Your task to perform on an android device: Go to calendar. Show me events next week Image 0: 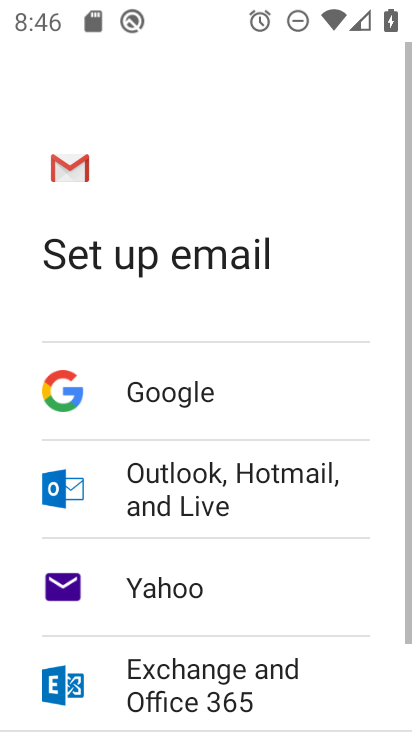
Step 0: press home button
Your task to perform on an android device: Go to calendar. Show me events next week Image 1: 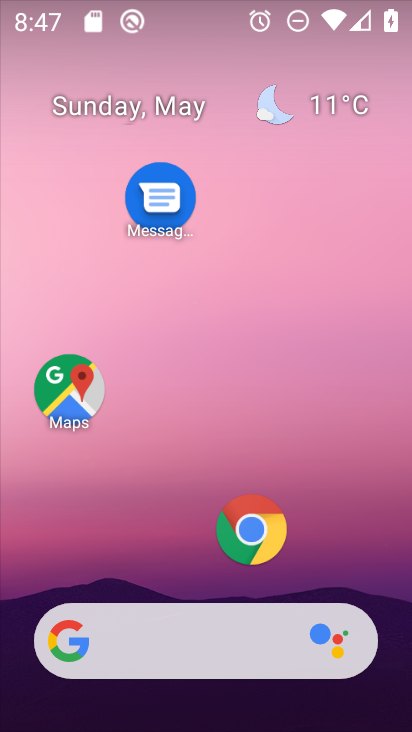
Step 1: drag from (190, 571) to (229, 6)
Your task to perform on an android device: Go to calendar. Show me events next week Image 2: 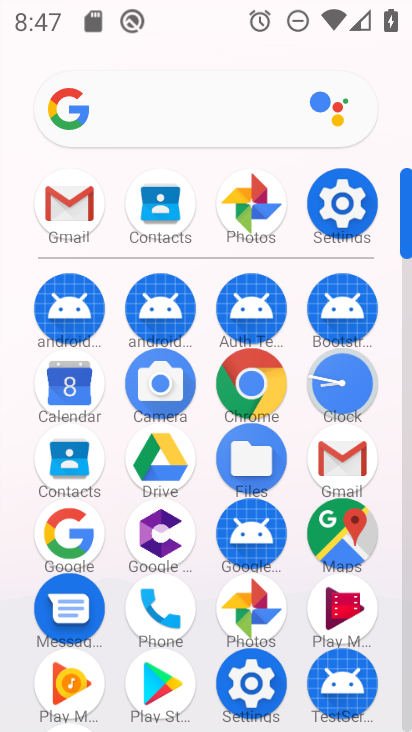
Step 2: click (69, 378)
Your task to perform on an android device: Go to calendar. Show me events next week Image 3: 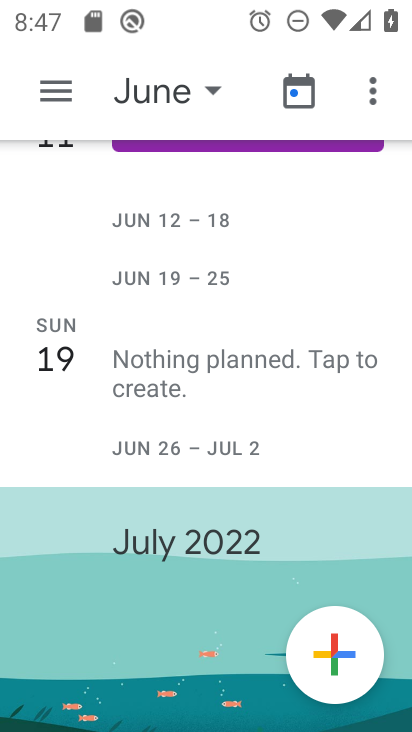
Step 3: click (55, 87)
Your task to perform on an android device: Go to calendar. Show me events next week Image 4: 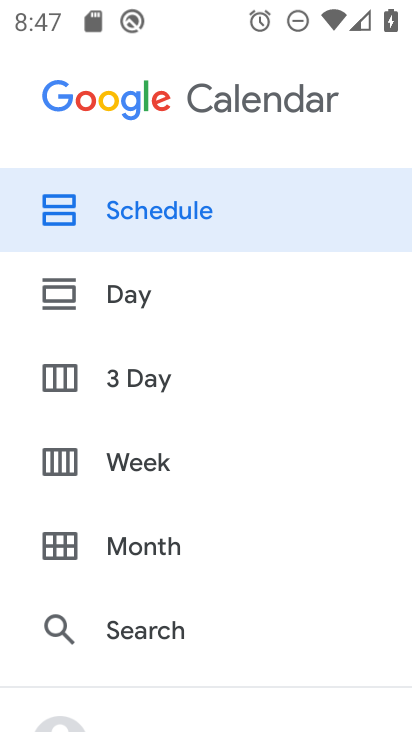
Step 4: click (116, 462)
Your task to perform on an android device: Go to calendar. Show me events next week Image 5: 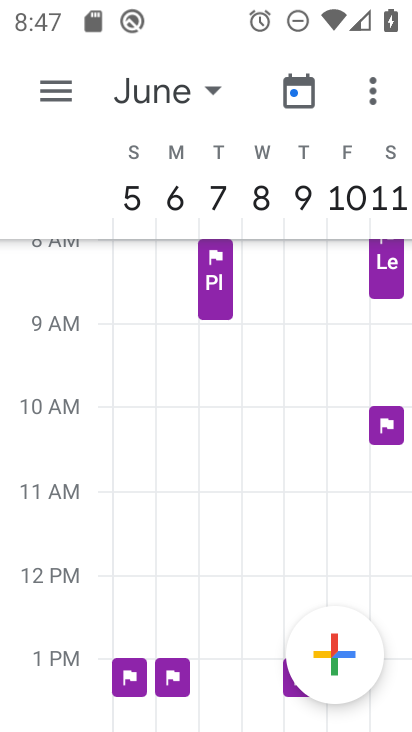
Step 5: drag from (139, 196) to (410, 219)
Your task to perform on an android device: Go to calendar. Show me events next week Image 6: 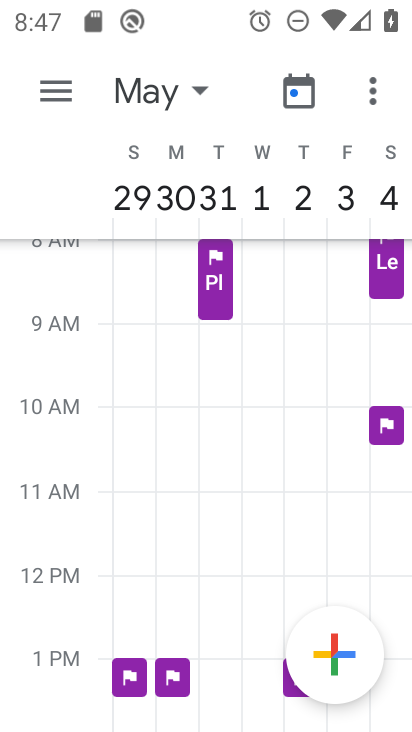
Step 6: drag from (126, 197) to (407, 197)
Your task to perform on an android device: Go to calendar. Show me events next week Image 7: 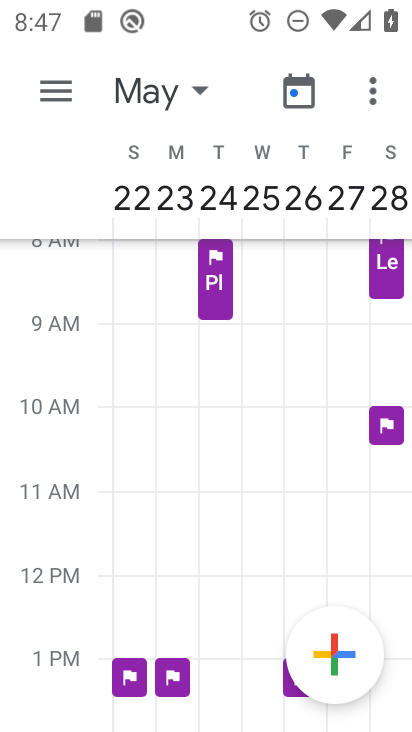
Step 7: drag from (112, 203) to (409, 207)
Your task to perform on an android device: Go to calendar. Show me events next week Image 8: 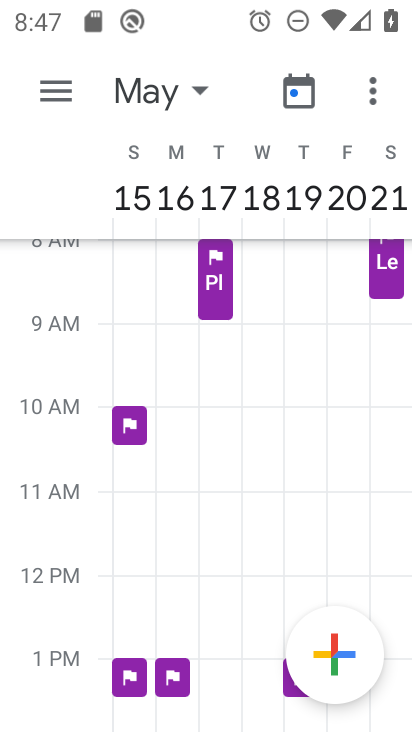
Step 8: drag from (127, 202) to (409, 211)
Your task to perform on an android device: Go to calendar. Show me events next week Image 9: 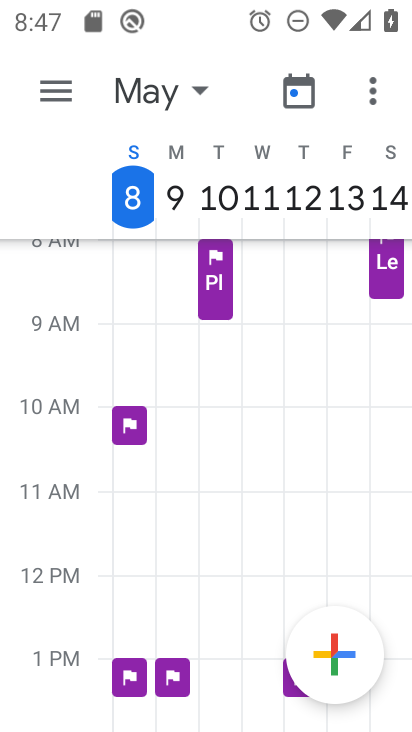
Step 9: drag from (385, 188) to (76, 181)
Your task to perform on an android device: Go to calendar. Show me events next week Image 10: 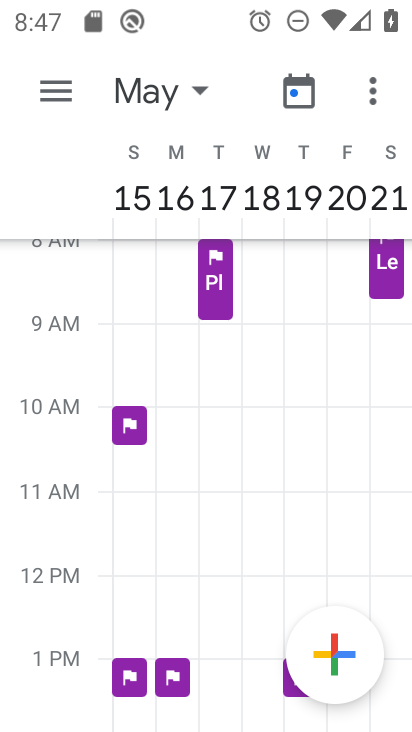
Step 10: click (120, 193)
Your task to perform on an android device: Go to calendar. Show me events next week Image 11: 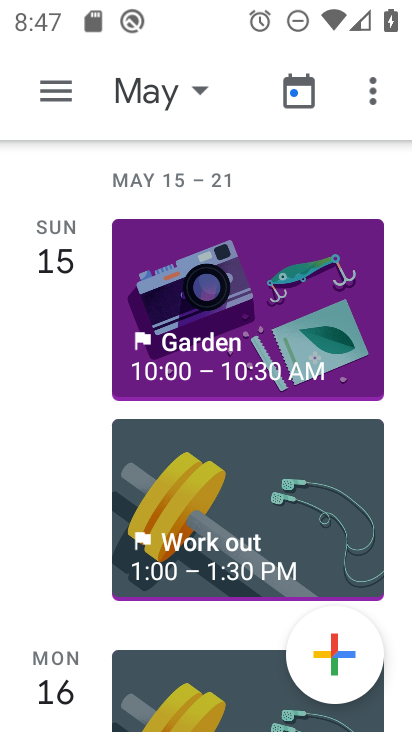
Step 11: click (62, 92)
Your task to perform on an android device: Go to calendar. Show me events next week Image 12: 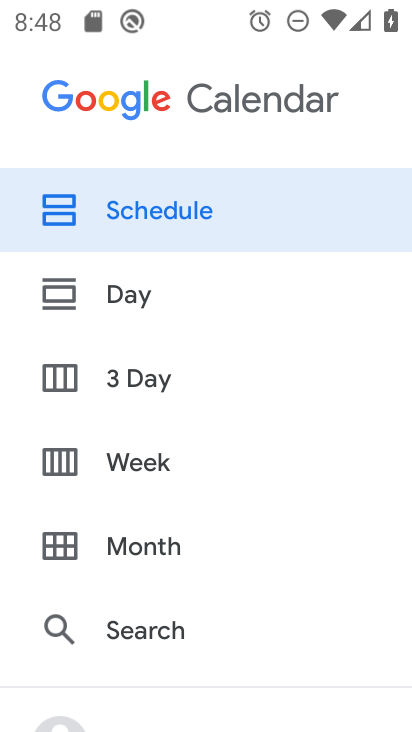
Step 12: drag from (95, 645) to (148, 199)
Your task to perform on an android device: Go to calendar. Show me events next week Image 13: 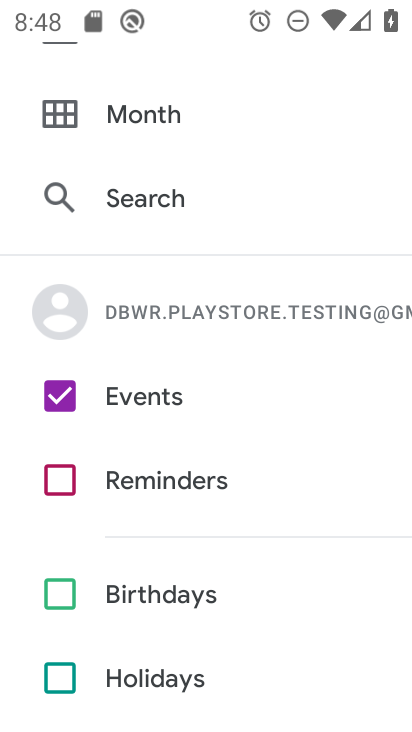
Step 13: drag from (108, 197) to (117, 659)
Your task to perform on an android device: Go to calendar. Show me events next week Image 14: 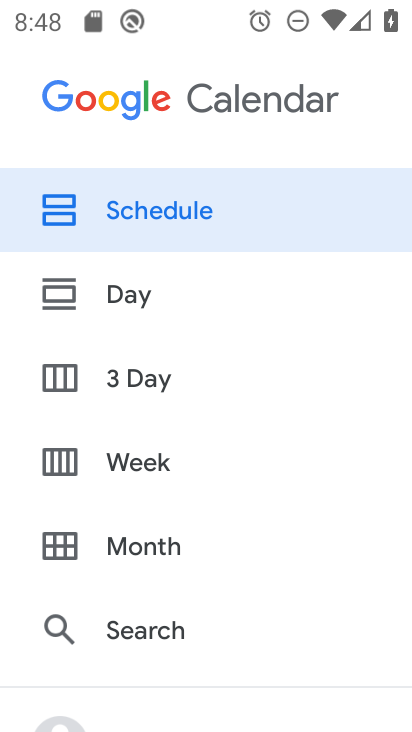
Step 14: click (84, 209)
Your task to perform on an android device: Go to calendar. Show me events next week Image 15: 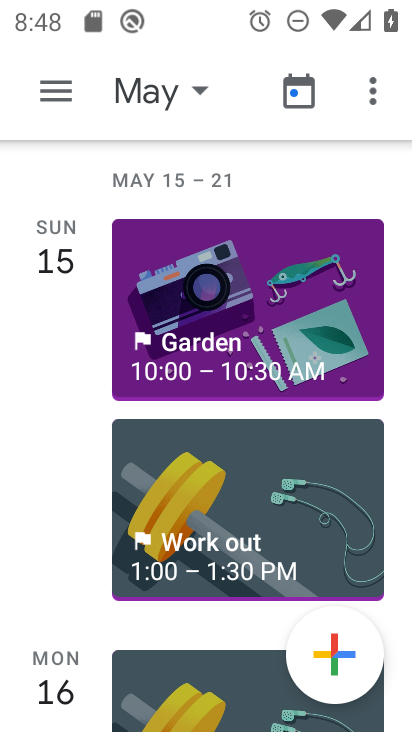
Step 15: task complete